Your task to perform on an android device: turn off improve location accuracy Image 0: 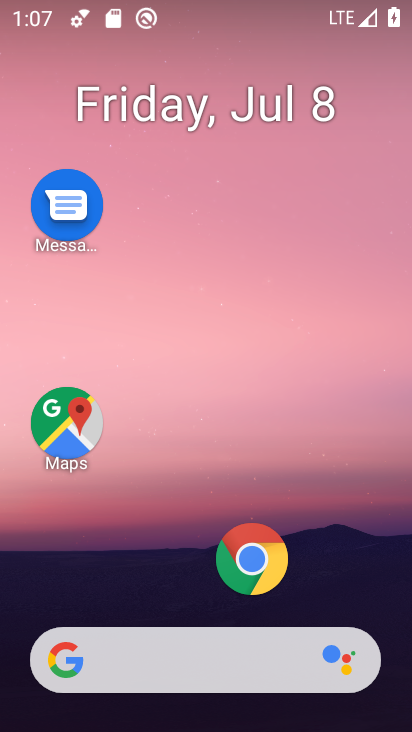
Step 0: drag from (206, 616) to (220, 92)
Your task to perform on an android device: turn off improve location accuracy Image 1: 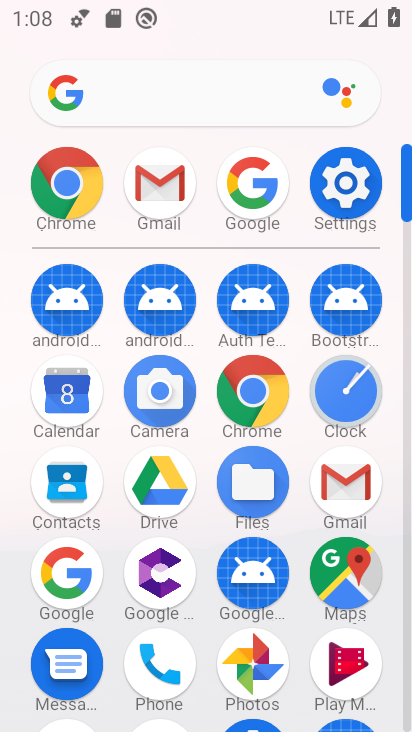
Step 1: click (326, 192)
Your task to perform on an android device: turn off improve location accuracy Image 2: 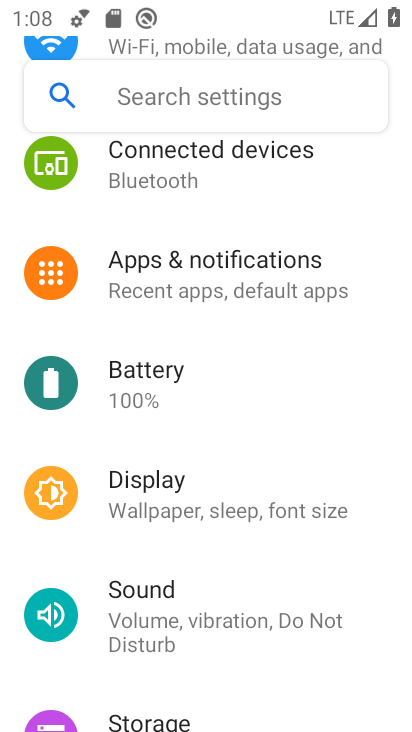
Step 2: drag from (289, 592) to (281, 278)
Your task to perform on an android device: turn off improve location accuracy Image 3: 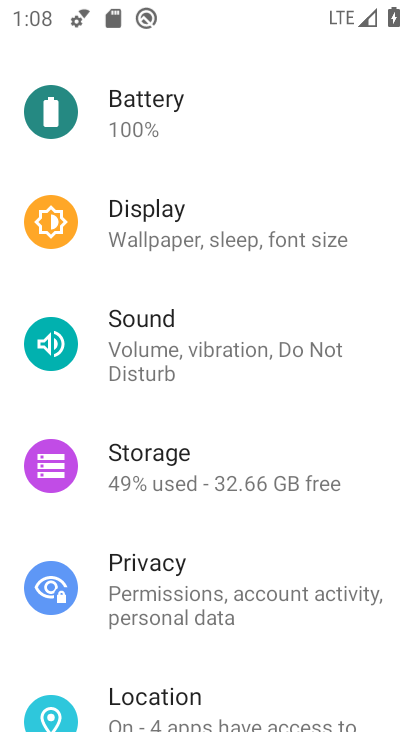
Step 3: click (209, 695)
Your task to perform on an android device: turn off improve location accuracy Image 4: 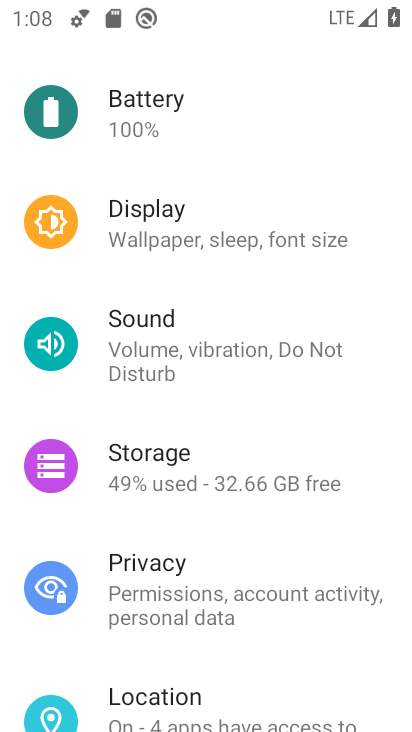
Step 4: drag from (209, 695) to (172, 317)
Your task to perform on an android device: turn off improve location accuracy Image 5: 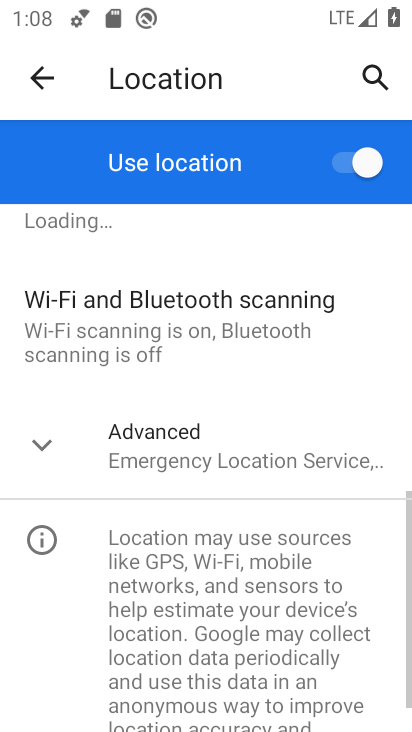
Step 5: click (174, 499)
Your task to perform on an android device: turn off improve location accuracy Image 6: 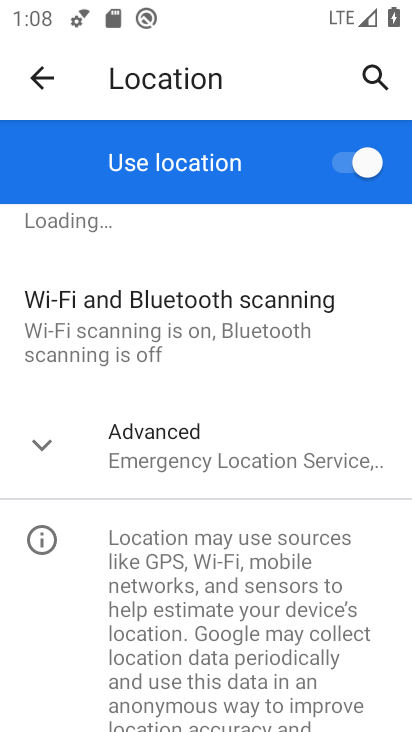
Step 6: click (172, 472)
Your task to perform on an android device: turn off improve location accuracy Image 7: 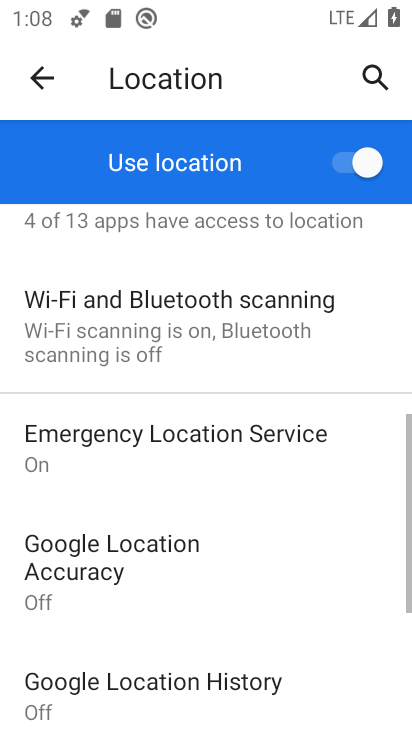
Step 7: drag from (172, 472) to (161, 194)
Your task to perform on an android device: turn off improve location accuracy Image 8: 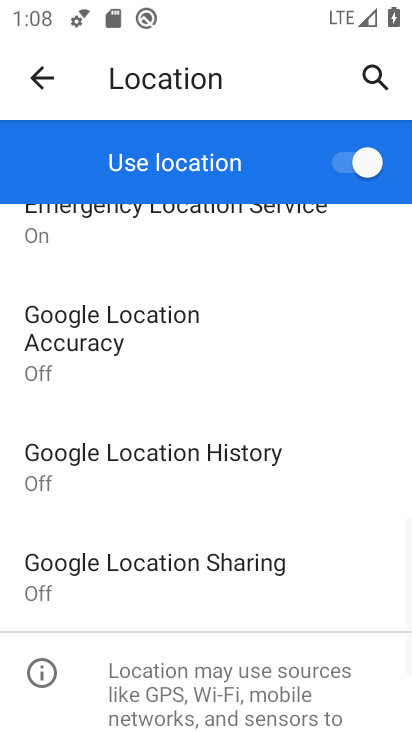
Step 8: click (161, 378)
Your task to perform on an android device: turn off improve location accuracy Image 9: 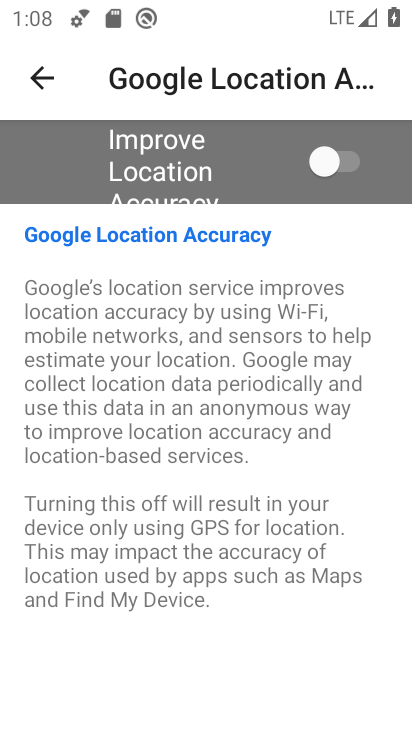
Step 9: task complete